Your task to perform on an android device: Go to Google maps Image 0: 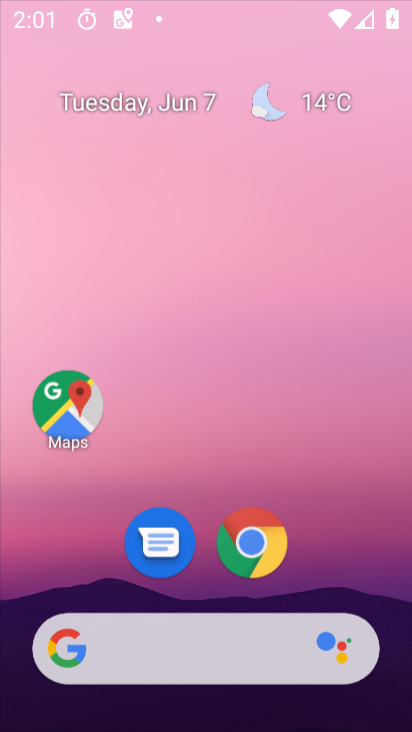
Step 0: drag from (378, 583) to (237, 13)
Your task to perform on an android device: Go to Google maps Image 1: 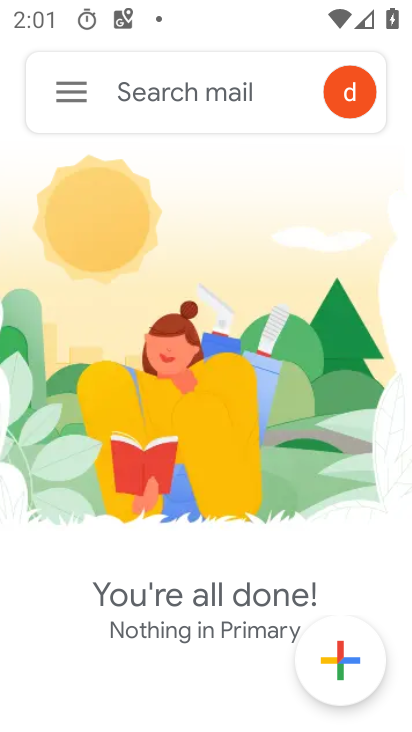
Step 1: press home button
Your task to perform on an android device: Go to Google maps Image 2: 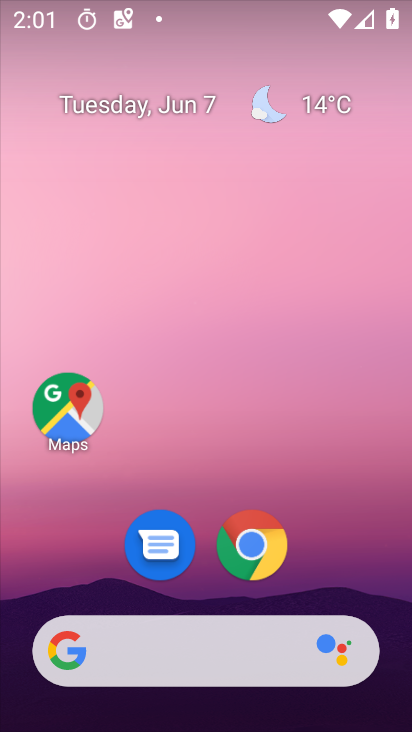
Step 2: click (65, 423)
Your task to perform on an android device: Go to Google maps Image 3: 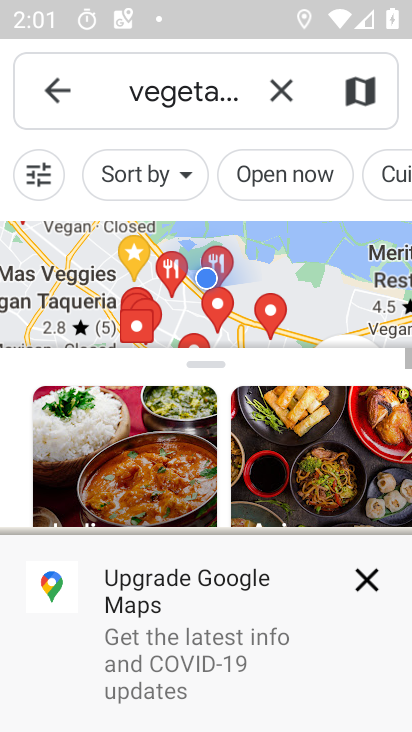
Step 3: task complete